Your task to perform on an android device: remove spam from my inbox in the gmail app Image 0: 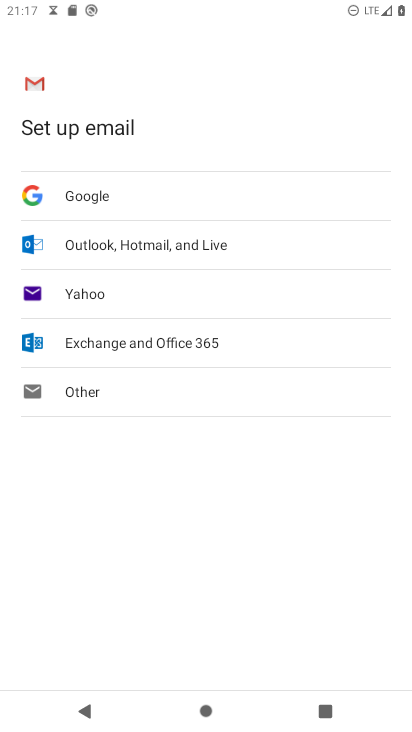
Step 0: press home button
Your task to perform on an android device: remove spam from my inbox in the gmail app Image 1: 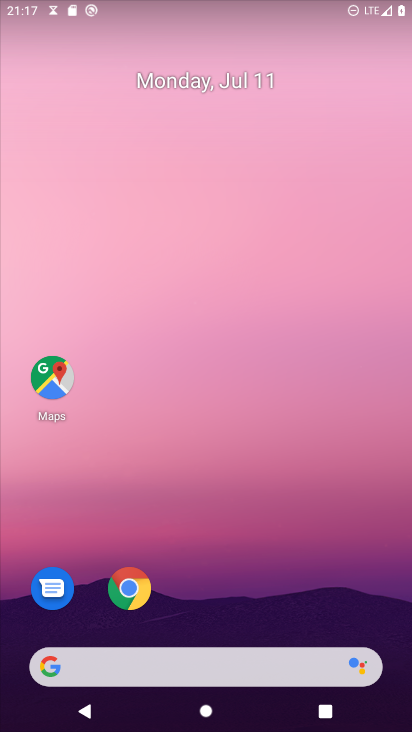
Step 1: drag from (222, 618) to (258, 3)
Your task to perform on an android device: remove spam from my inbox in the gmail app Image 2: 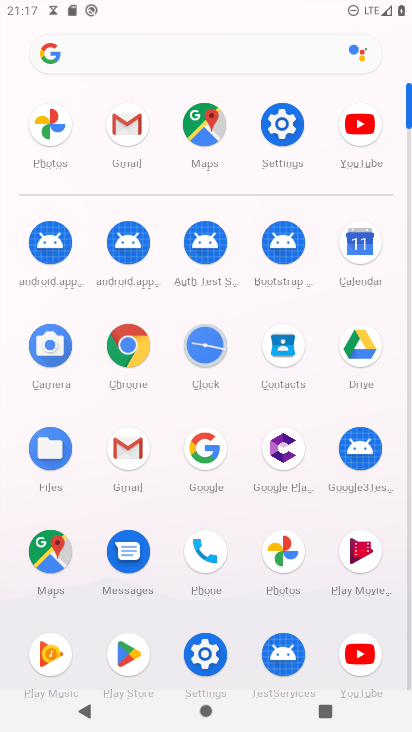
Step 2: click (133, 130)
Your task to perform on an android device: remove spam from my inbox in the gmail app Image 3: 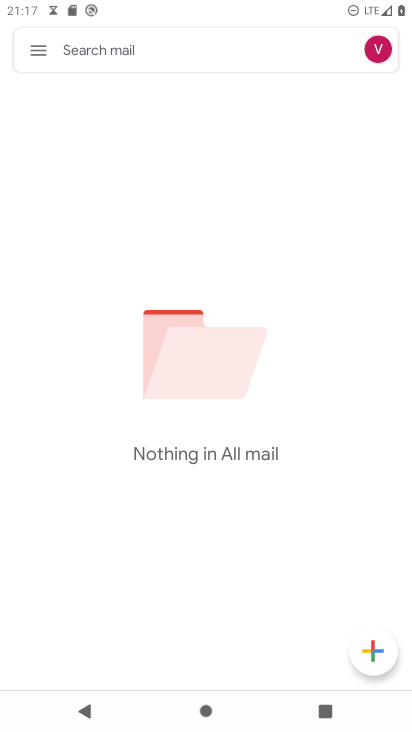
Step 3: click (42, 50)
Your task to perform on an android device: remove spam from my inbox in the gmail app Image 4: 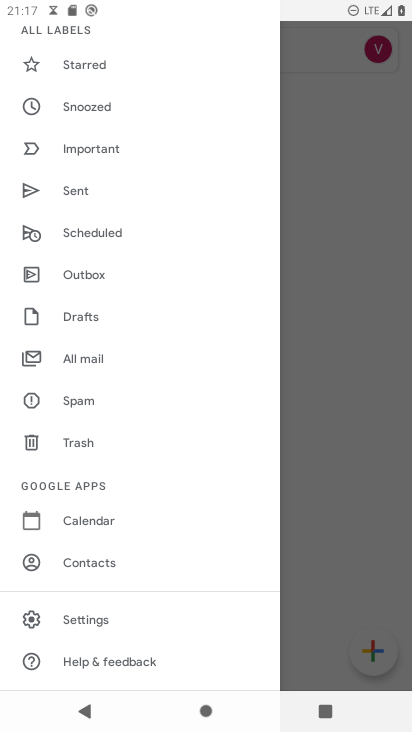
Step 4: click (69, 404)
Your task to perform on an android device: remove spam from my inbox in the gmail app Image 5: 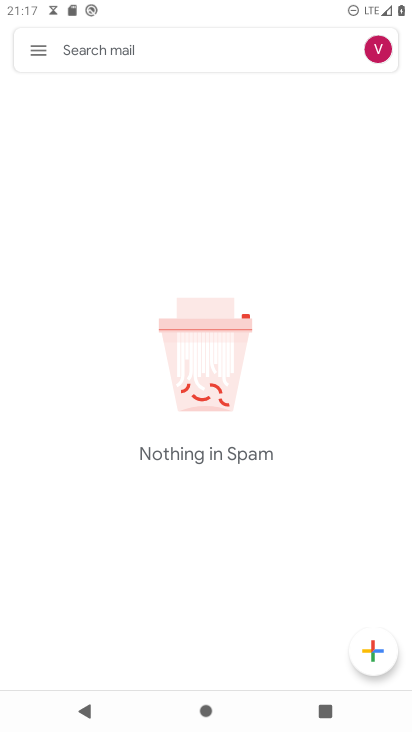
Step 5: task complete